Your task to perform on an android device: Go to Android settings Image 0: 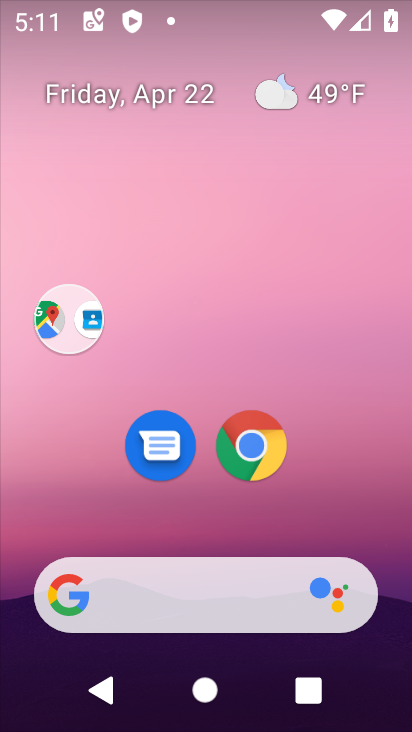
Step 0: drag from (349, 491) to (320, 89)
Your task to perform on an android device: Go to Android settings Image 1: 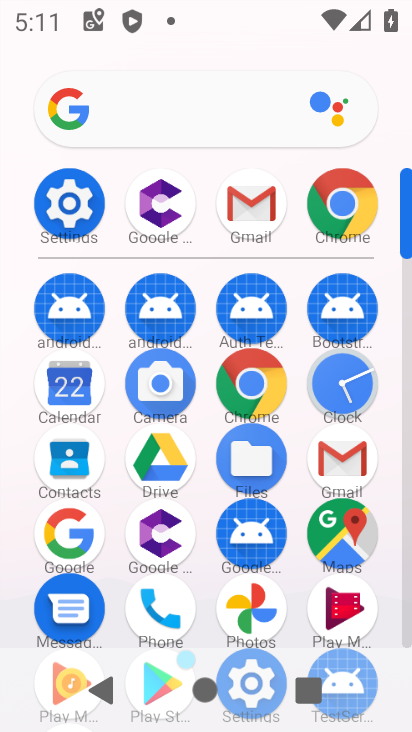
Step 1: click (82, 207)
Your task to perform on an android device: Go to Android settings Image 2: 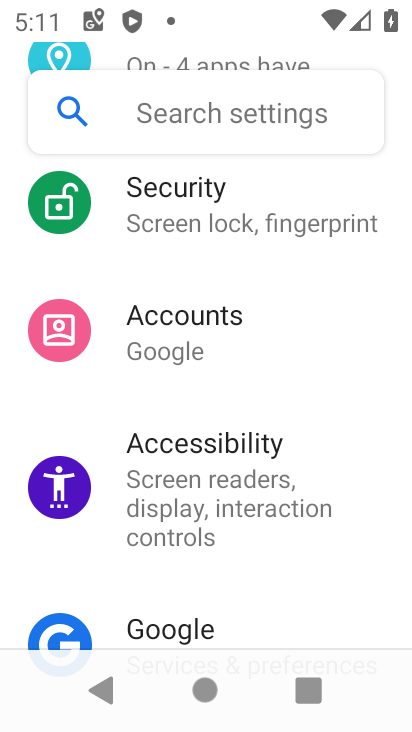
Step 2: task complete